Your task to perform on an android device: turn off smart reply in the gmail app Image 0: 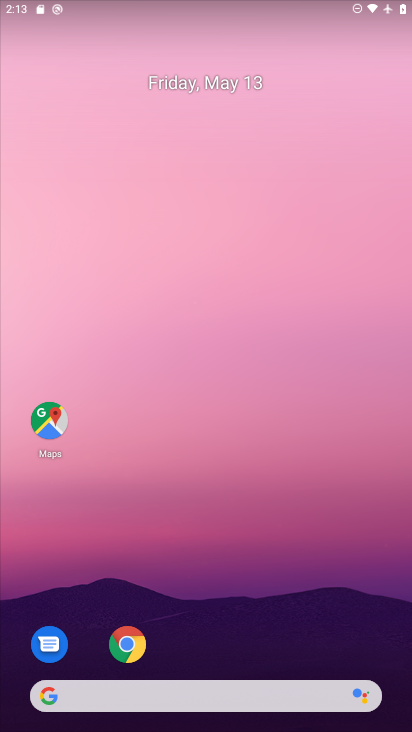
Step 0: drag from (381, 643) to (306, 60)
Your task to perform on an android device: turn off smart reply in the gmail app Image 1: 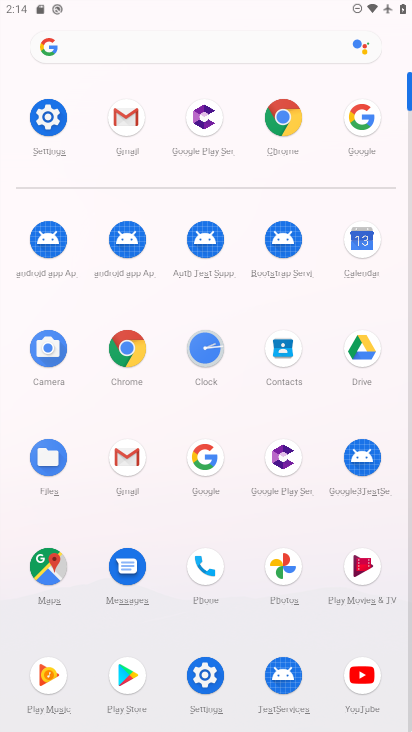
Step 1: click (134, 457)
Your task to perform on an android device: turn off smart reply in the gmail app Image 2: 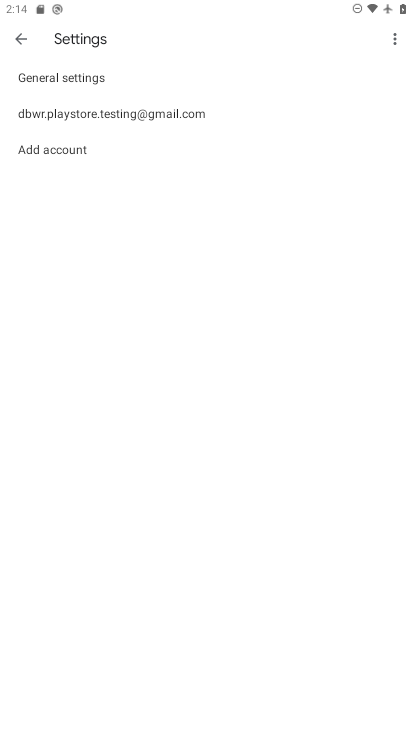
Step 2: click (205, 116)
Your task to perform on an android device: turn off smart reply in the gmail app Image 3: 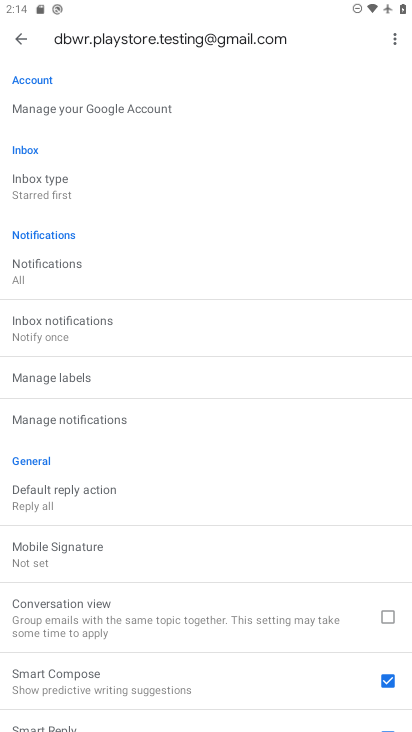
Step 3: drag from (182, 630) to (174, 116)
Your task to perform on an android device: turn off smart reply in the gmail app Image 4: 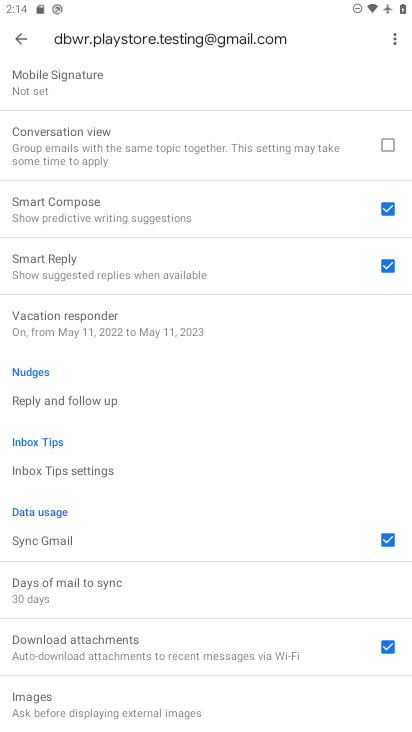
Step 4: click (286, 255)
Your task to perform on an android device: turn off smart reply in the gmail app Image 5: 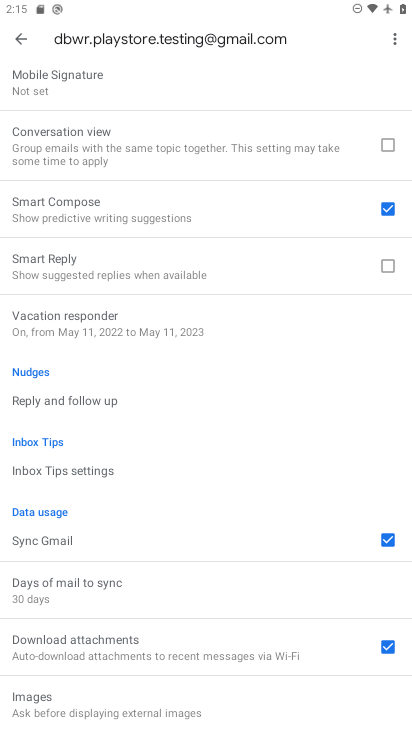
Step 5: task complete